Your task to perform on an android device: Open the map Image 0: 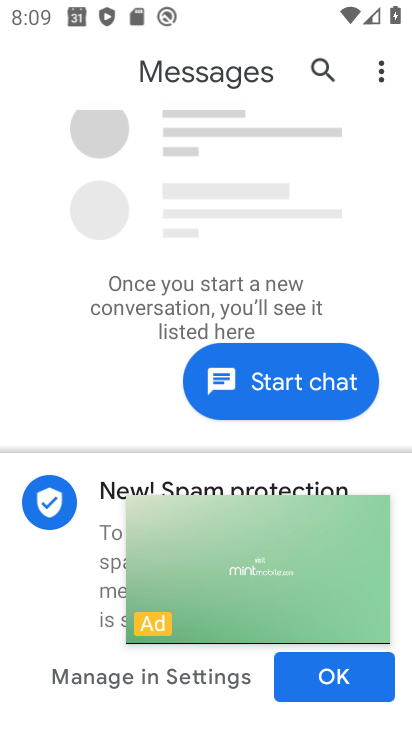
Step 0: click (371, 522)
Your task to perform on an android device: Open the map Image 1: 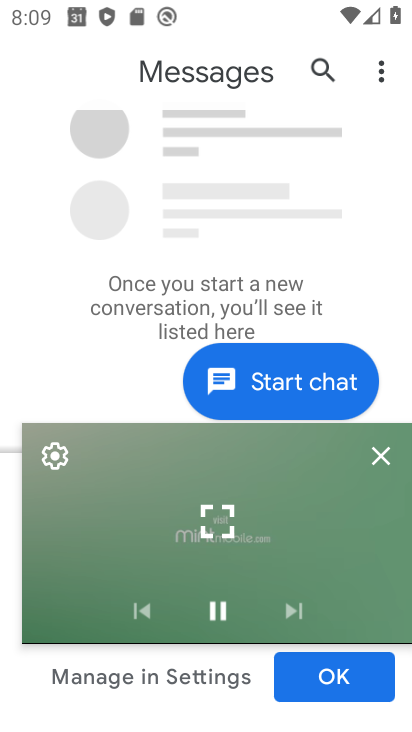
Step 1: click (384, 451)
Your task to perform on an android device: Open the map Image 2: 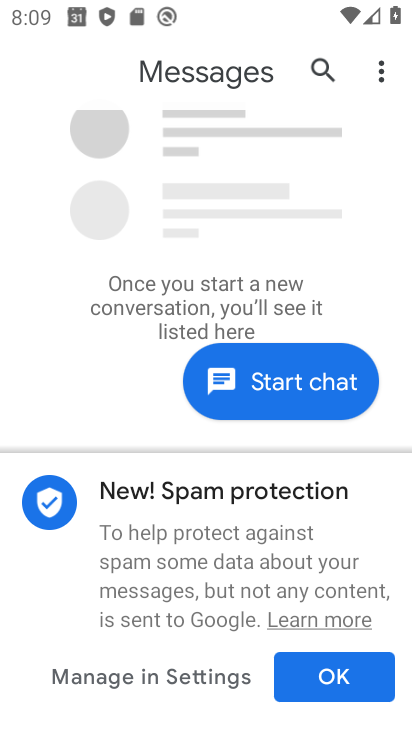
Step 2: press home button
Your task to perform on an android device: Open the map Image 3: 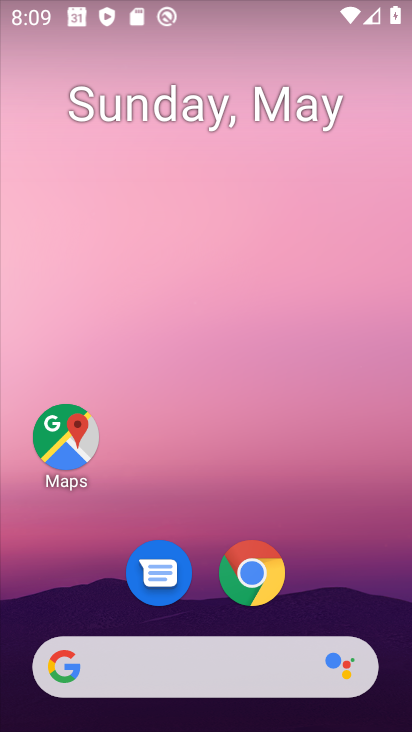
Step 3: click (89, 453)
Your task to perform on an android device: Open the map Image 4: 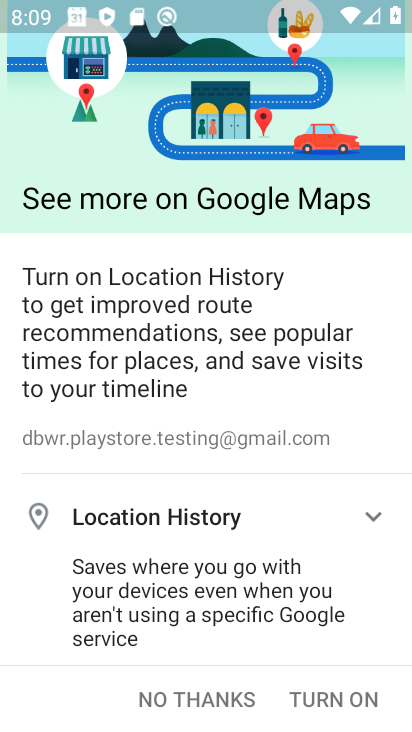
Step 4: click (233, 697)
Your task to perform on an android device: Open the map Image 5: 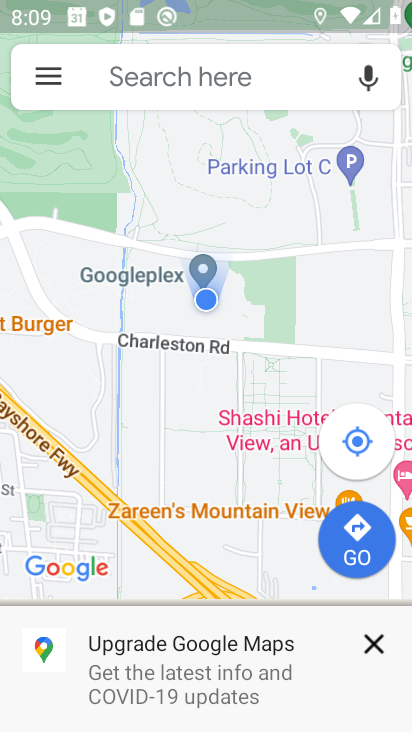
Step 5: task complete